Your task to perform on an android device: Open Youtube and go to the subscriptions tab Image 0: 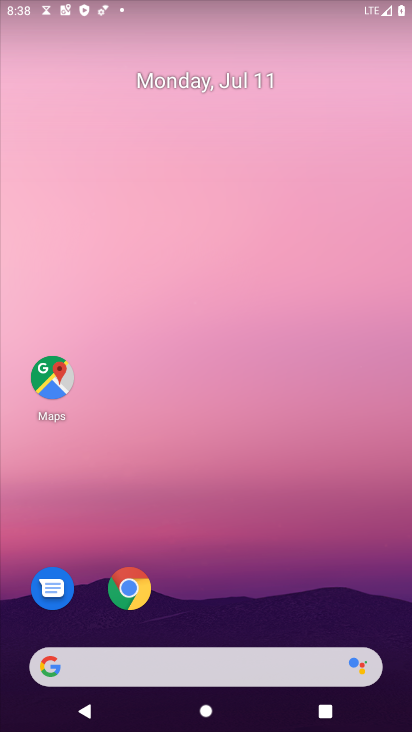
Step 0: press home button
Your task to perform on an android device: Open Youtube and go to the subscriptions tab Image 1: 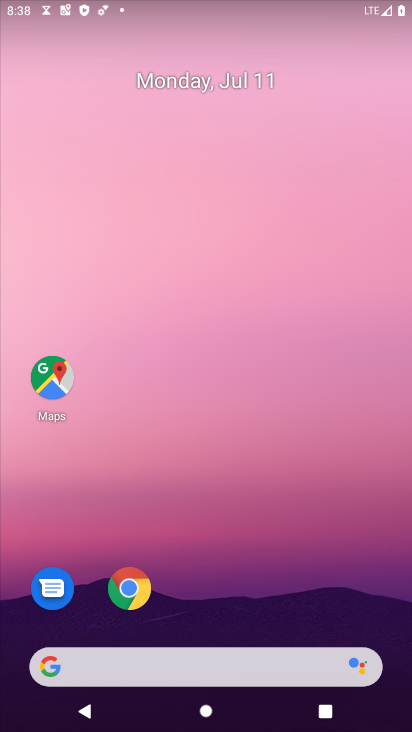
Step 1: drag from (250, 620) to (231, 39)
Your task to perform on an android device: Open Youtube and go to the subscriptions tab Image 2: 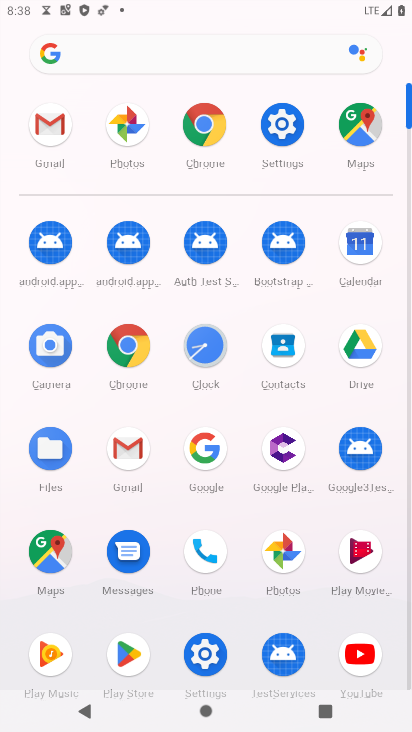
Step 2: click (357, 661)
Your task to perform on an android device: Open Youtube and go to the subscriptions tab Image 3: 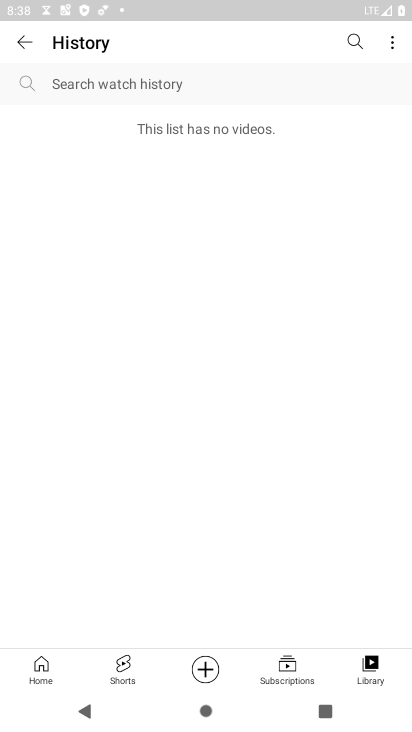
Step 3: click (291, 668)
Your task to perform on an android device: Open Youtube and go to the subscriptions tab Image 4: 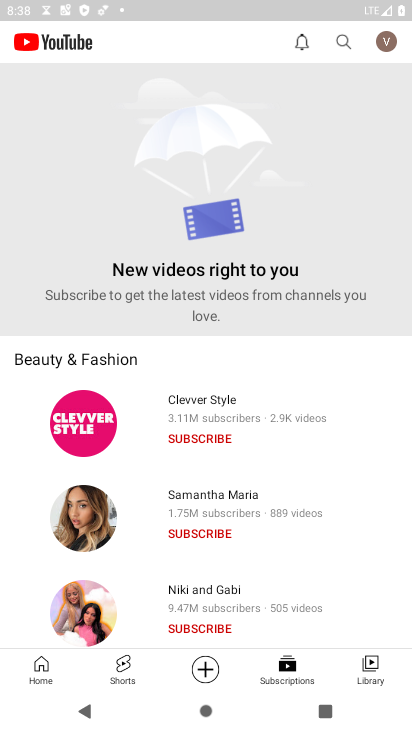
Step 4: task complete